Your task to perform on an android device: change the clock display to digital Image 0: 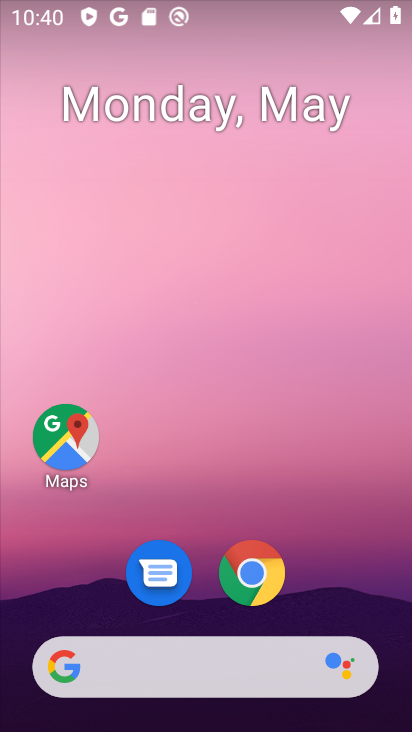
Step 0: drag from (195, 435) to (250, 79)
Your task to perform on an android device: change the clock display to digital Image 1: 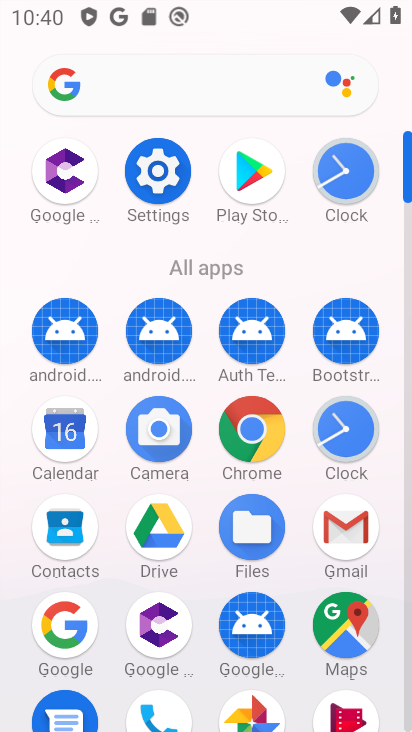
Step 1: click (365, 412)
Your task to perform on an android device: change the clock display to digital Image 2: 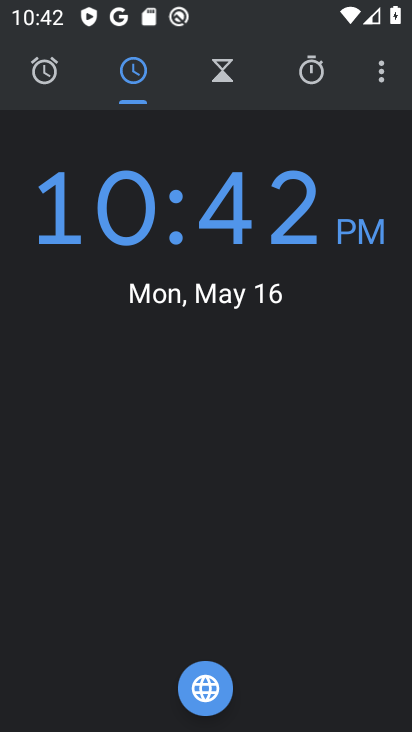
Step 2: click (377, 76)
Your task to perform on an android device: change the clock display to digital Image 3: 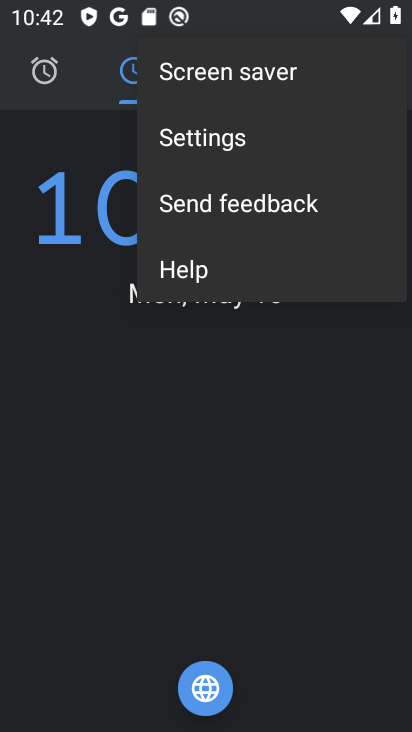
Step 3: click (268, 143)
Your task to perform on an android device: change the clock display to digital Image 4: 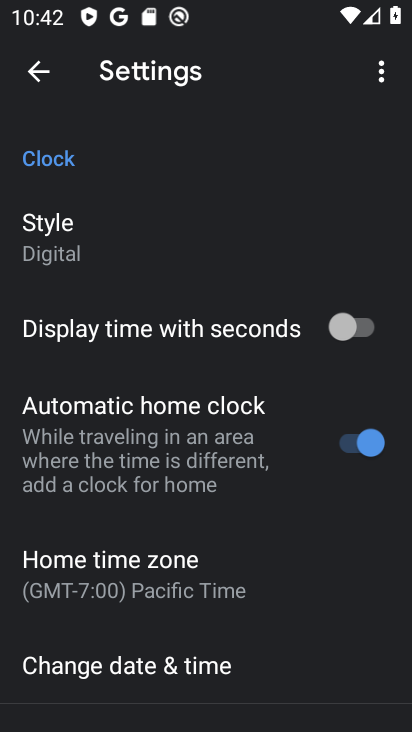
Step 4: task complete